Your task to perform on an android device: Open calendar and show me the third week of next month Image 0: 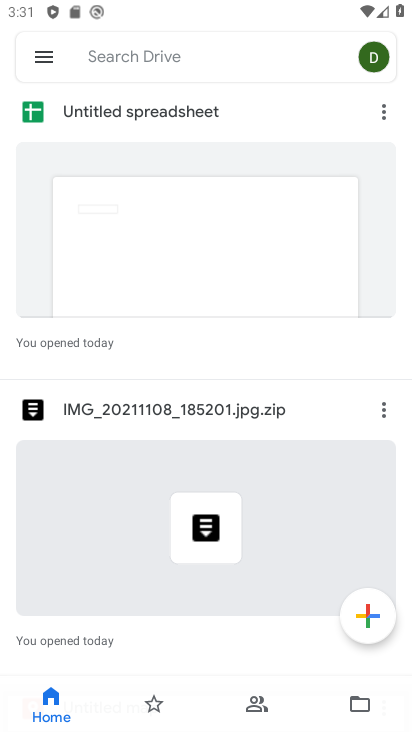
Step 0: press home button
Your task to perform on an android device: Open calendar and show me the third week of next month Image 1: 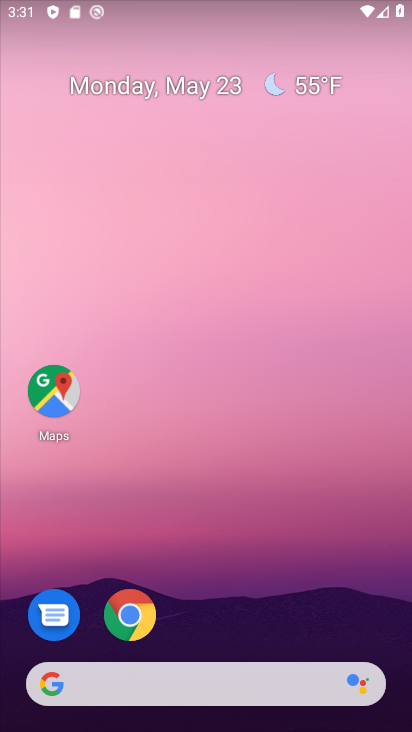
Step 1: drag from (342, 619) to (347, 132)
Your task to perform on an android device: Open calendar and show me the third week of next month Image 2: 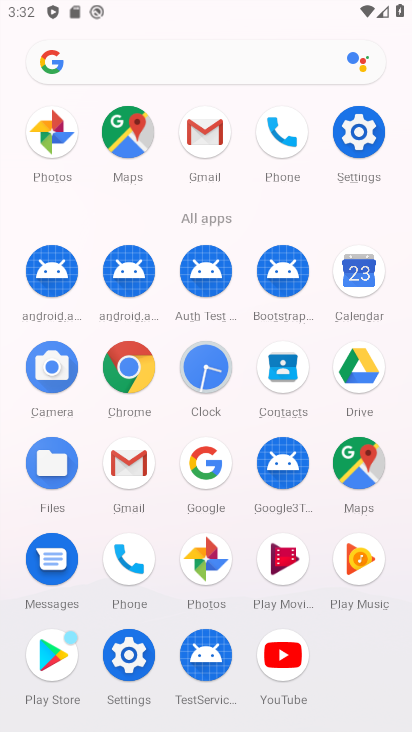
Step 2: click (358, 264)
Your task to perform on an android device: Open calendar and show me the third week of next month Image 3: 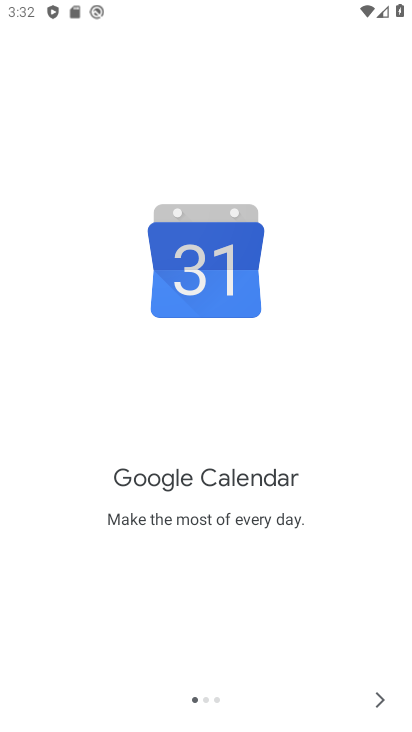
Step 3: click (378, 699)
Your task to perform on an android device: Open calendar and show me the third week of next month Image 4: 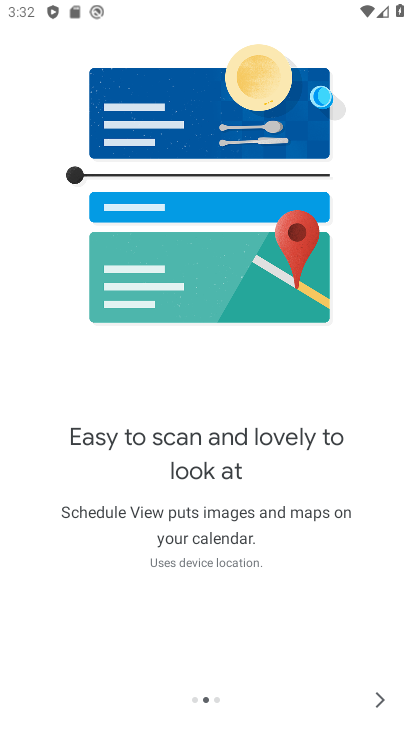
Step 4: click (378, 699)
Your task to perform on an android device: Open calendar and show me the third week of next month Image 5: 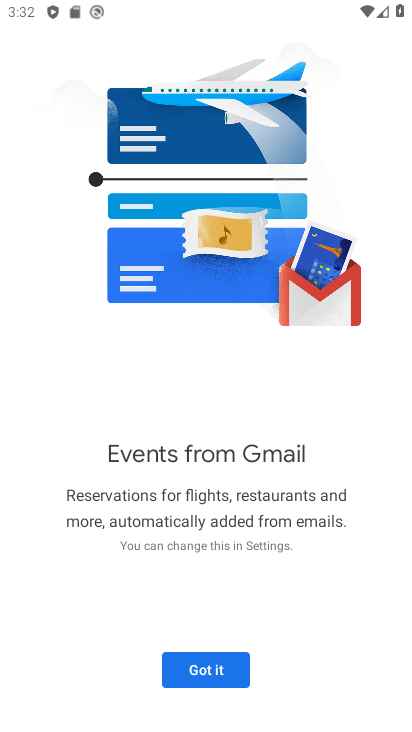
Step 5: click (188, 667)
Your task to perform on an android device: Open calendar and show me the third week of next month Image 6: 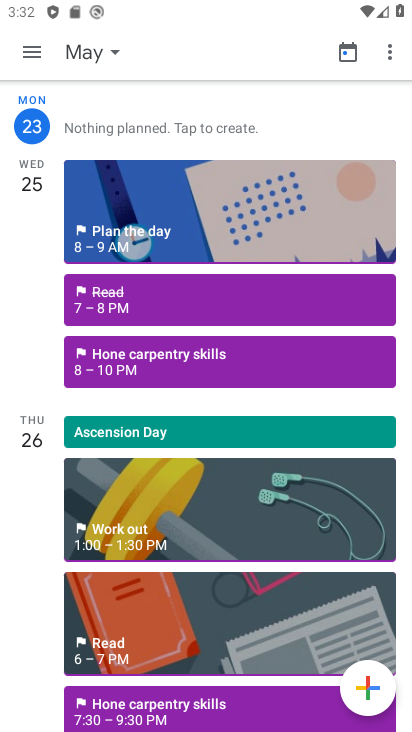
Step 6: click (107, 51)
Your task to perform on an android device: Open calendar and show me the third week of next month Image 7: 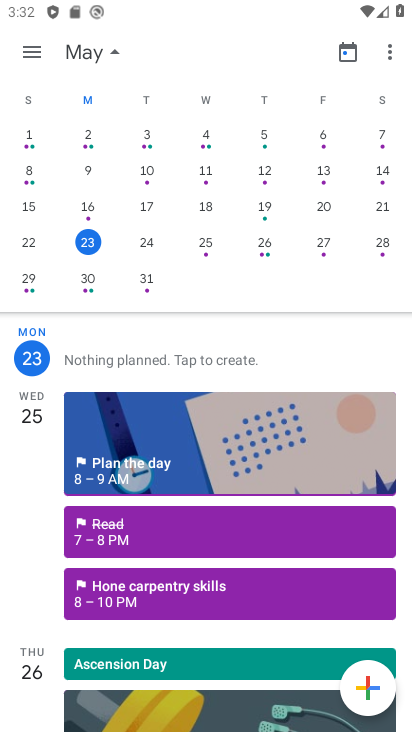
Step 7: drag from (384, 113) to (28, 116)
Your task to perform on an android device: Open calendar and show me the third week of next month Image 8: 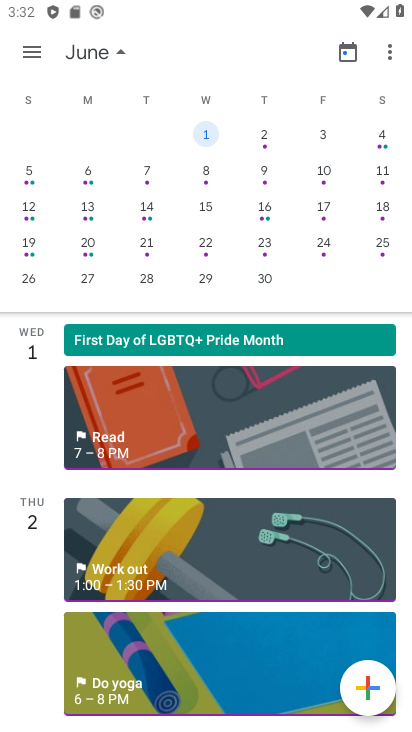
Step 8: click (82, 214)
Your task to perform on an android device: Open calendar and show me the third week of next month Image 9: 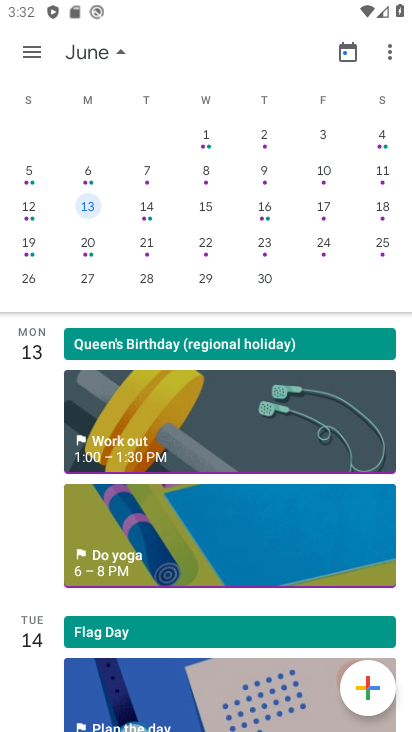
Step 9: task complete